Your task to perform on an android device: set an alarm Image 0: 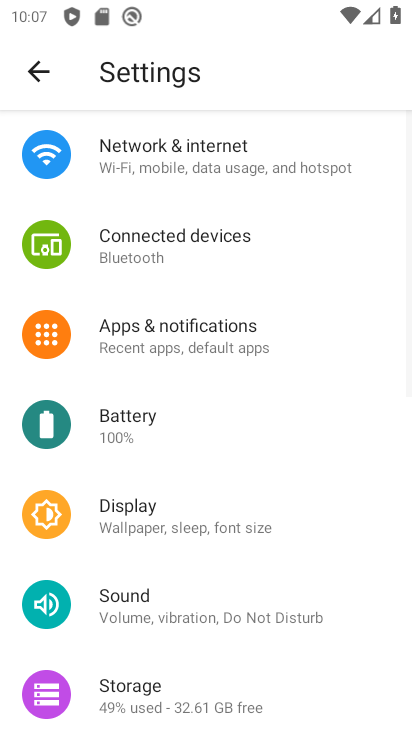
Step 0: press home button
Your task to perform on an android device: set an alarm Image 1: 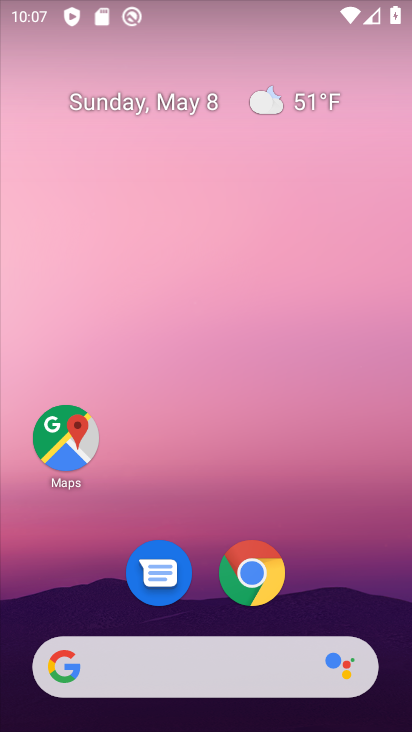
Step 1: drag from (192, 640) to (197, 326)
Your task to perform on an android device: set an alarm Image 2: 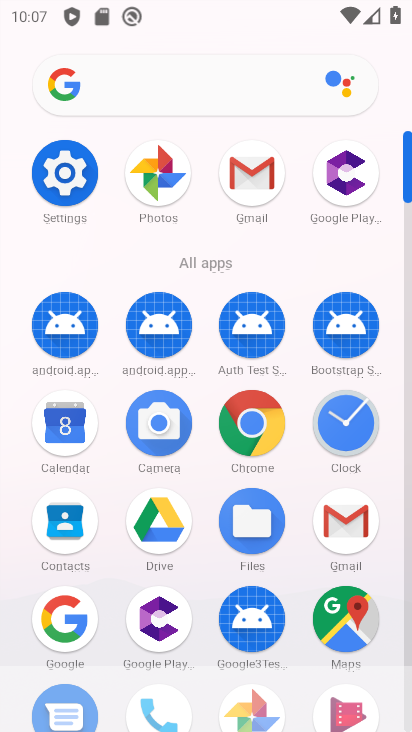
Step 2: click (350, 436)
Your task to perform on an android device: set an alarm Image 3: 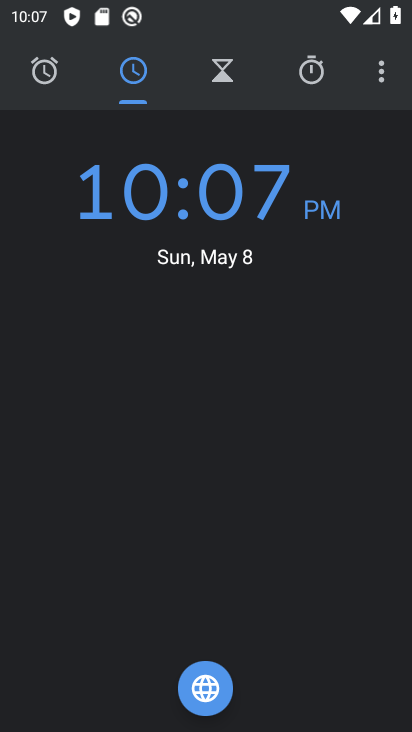
Step 3: click (58, 66)
Your task to perform on an android device: set an alarm Image 4: 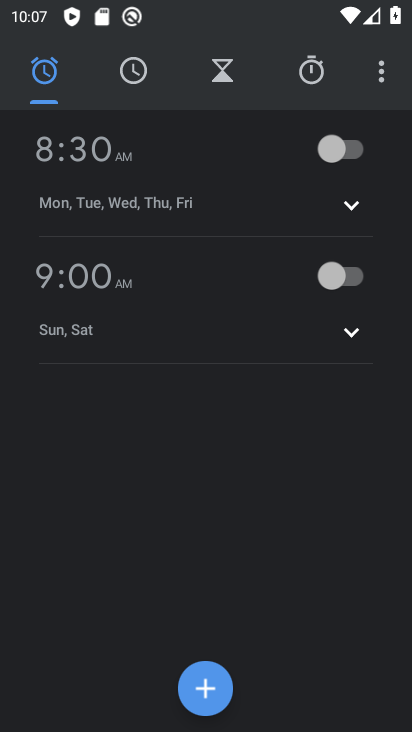
Step 4: click (208, 686)
Your task to perform on an android device: set an alarm Image 5: 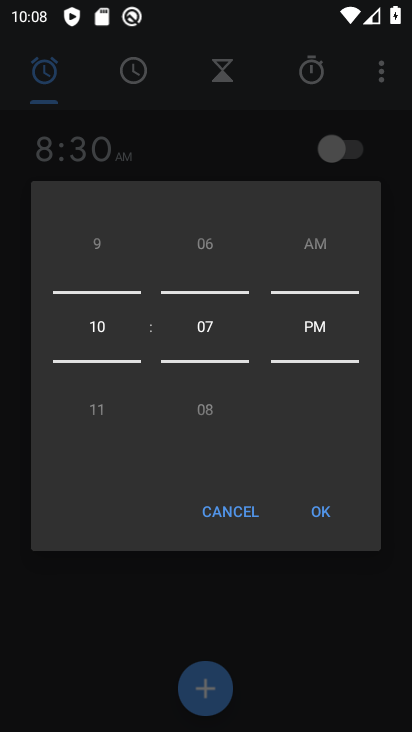
Step 5: drag from (111, 403) to (110, 295)
Your task to perform on an android device: set an alarm Image 6: 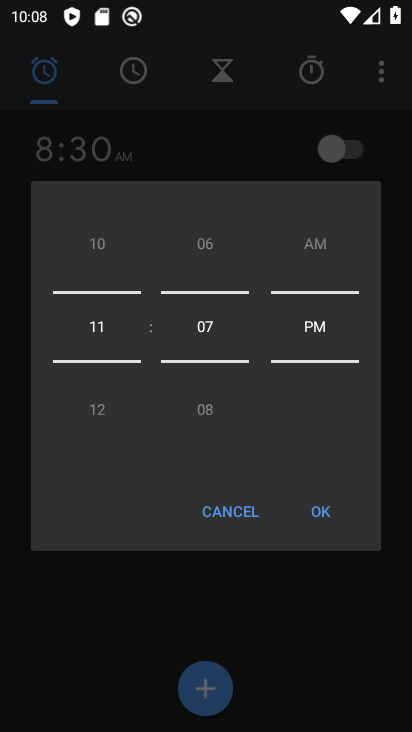
Step 6: drag from (209, 384) to (225, 542)
Your task to perform on an android device: set an alarm Image 7: 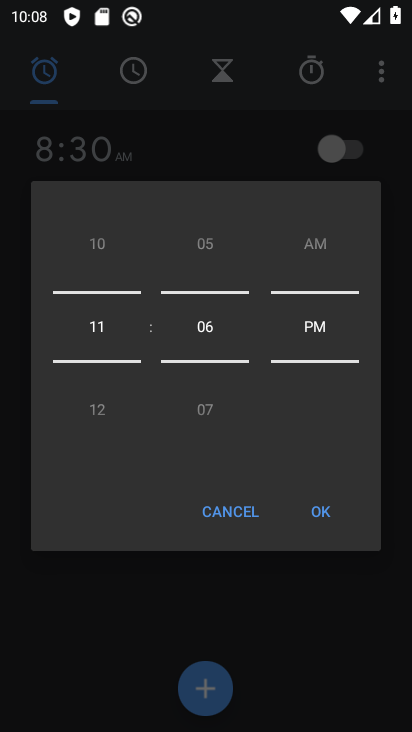
Step 7: drag from (327, 388) to (336, 490)
Your task to perform on an android device: set an alarm Image 8: 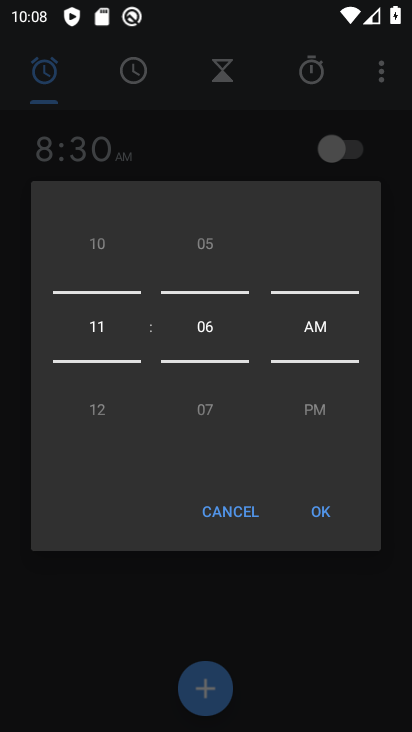
Step 8: click (201, 687)
Your task to perform on an android device: set an alarm Image 9: 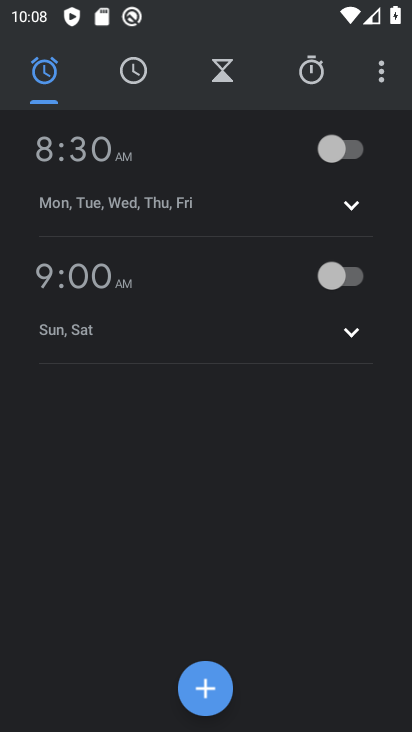
Step 9: task complete